Your task to perform on an android device: Open ESPN.com Image 0: 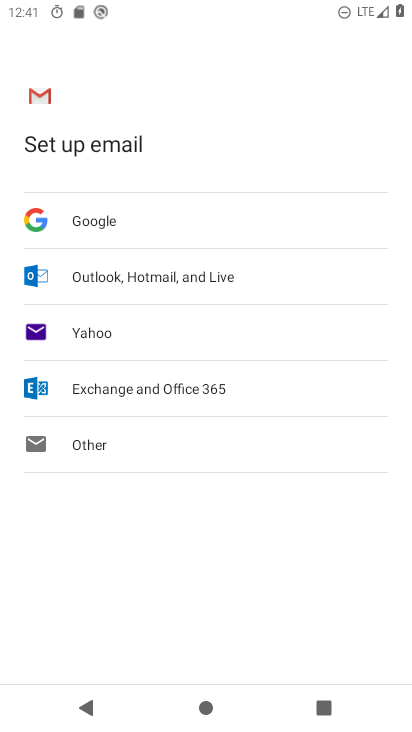
Step 0: press home button
Your task to perform on an android device: Open ESPN.com Image 1: 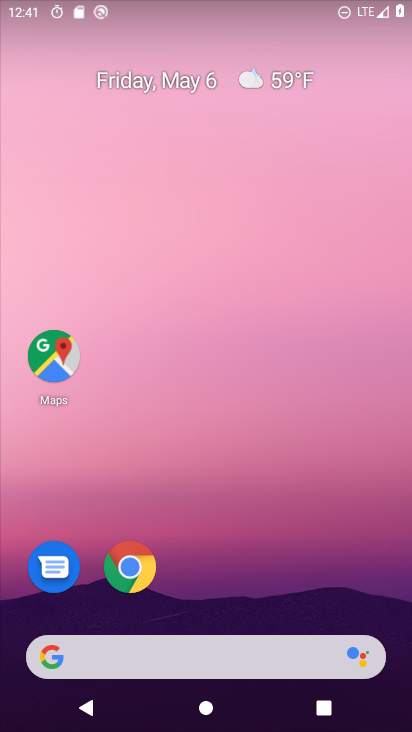
Step 1: click (139, 572)
Your task to perform on an android device: Open ESPN.com Image 2: 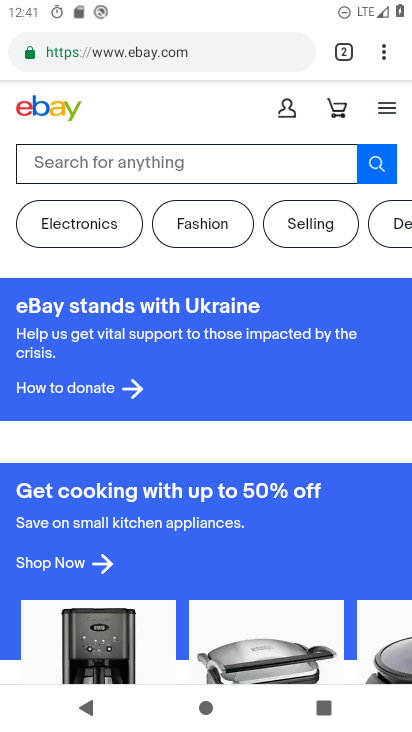
Step 2: click (141, 55)
Your task to perform on an android device: Open ESPN.com Image 3: 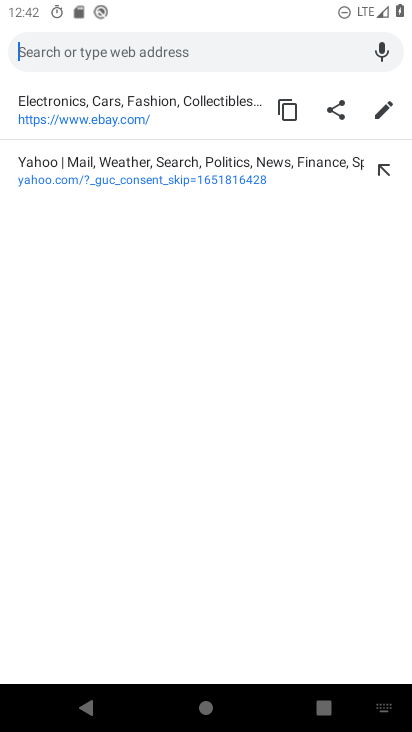
Step 3: type "espn.com"
Your task to perform on an android device: Open ESPN.com Image 4: 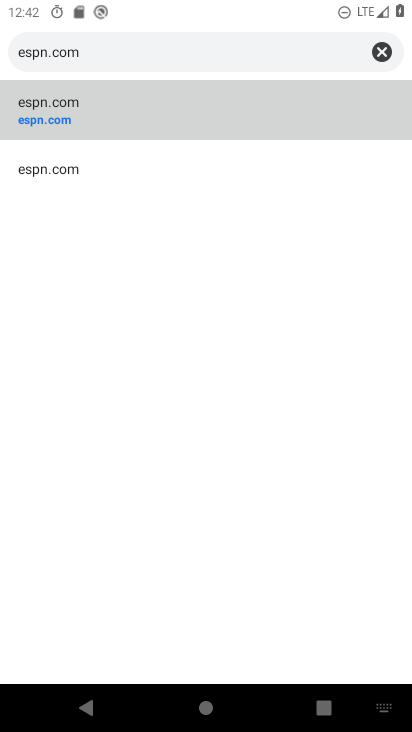
Step 4: click (57, 119)
Your task to perform on an android device: Open ESPN.com Image 5: 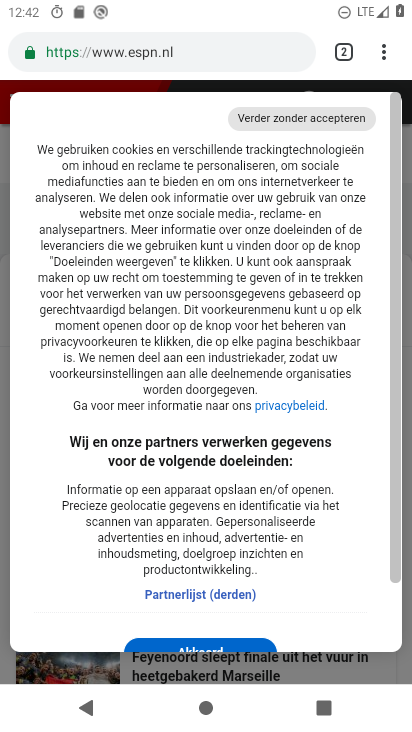
Step 5: task complete